Your task to perform on an android device: Open my contact list Image 0: 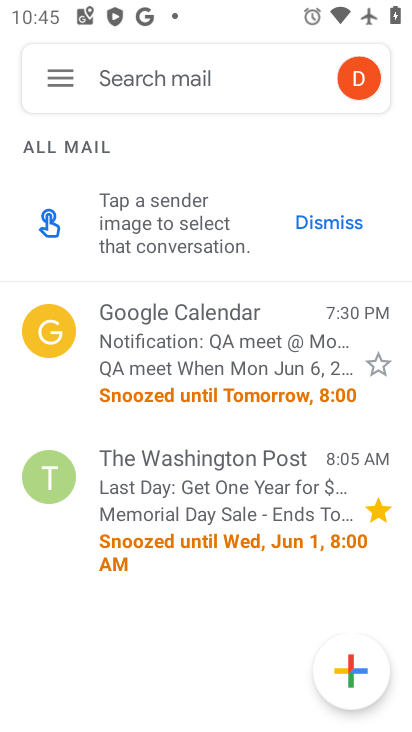
Step 0: press home button
Your task to perform on an android device: Open my contact list Image 1: 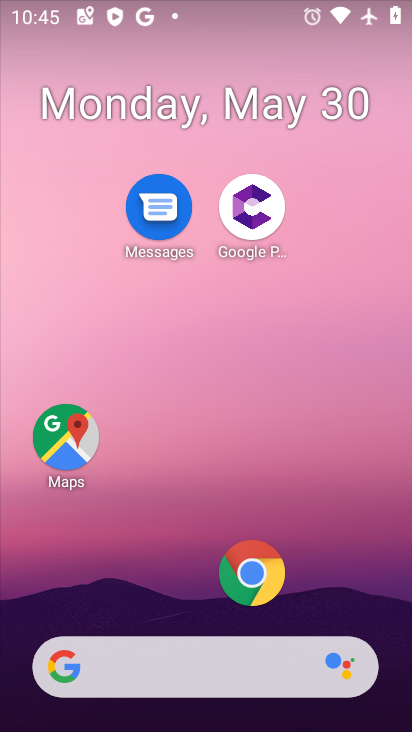
Step 1: drag from (192, 636) to (323, 205)
Your task to perform on an android device: Open my contact list Image 2: 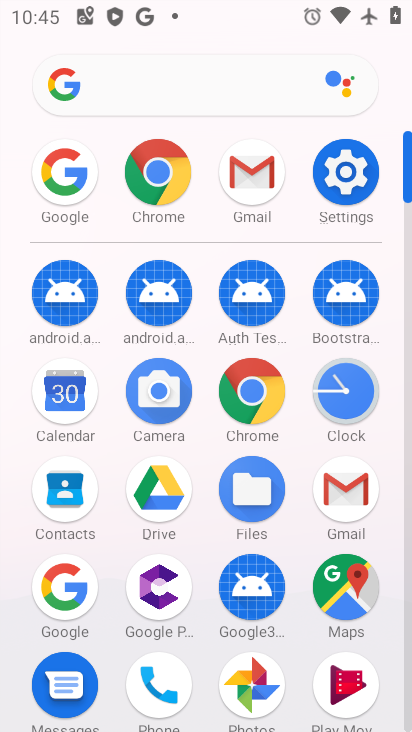
Step 2: click (73, 496)
Your task to perform on an android device: Open my contact list Image 3: 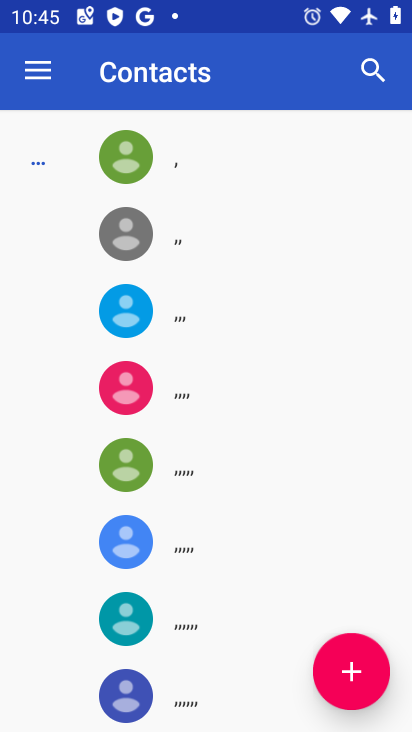
Step 3: task complete